Your task to perform on an android device: check data usage Image 0: 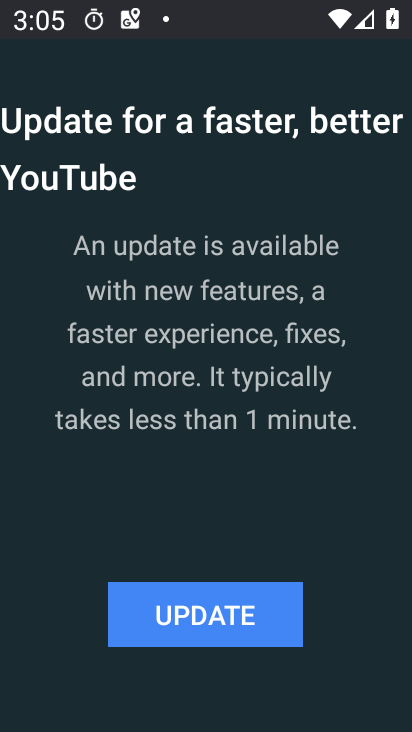
Step 0: press home button
Your task to perform on an android device: check data usage Image 1: 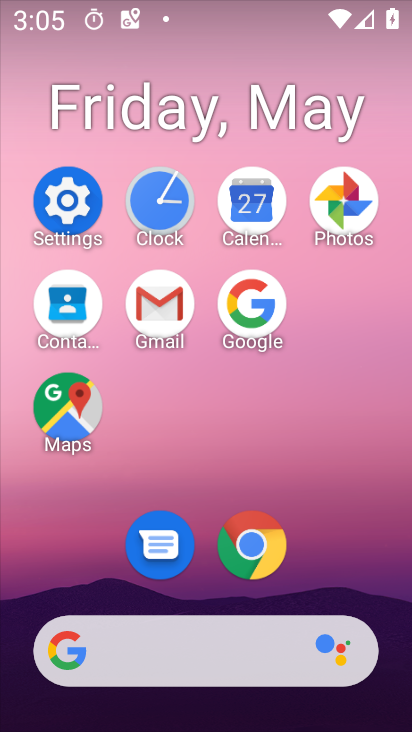
Step 1: click (72, 197)
Your task to perform on an android device: check data usage Image 2: 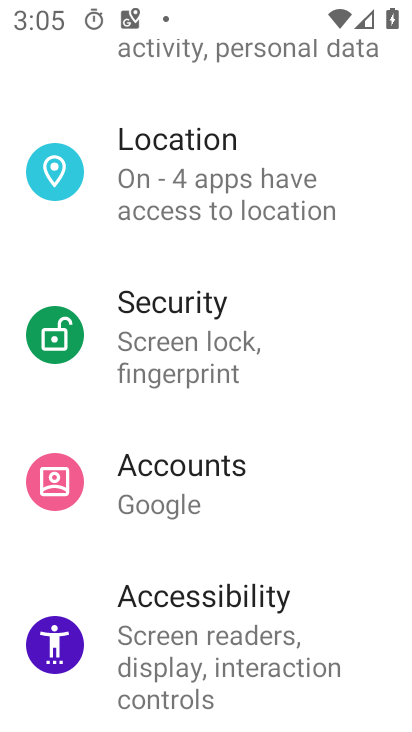
Step 2: drag from (315, 179) to (304, 592)
Your task to perform on an android device: check data usage Image 3: 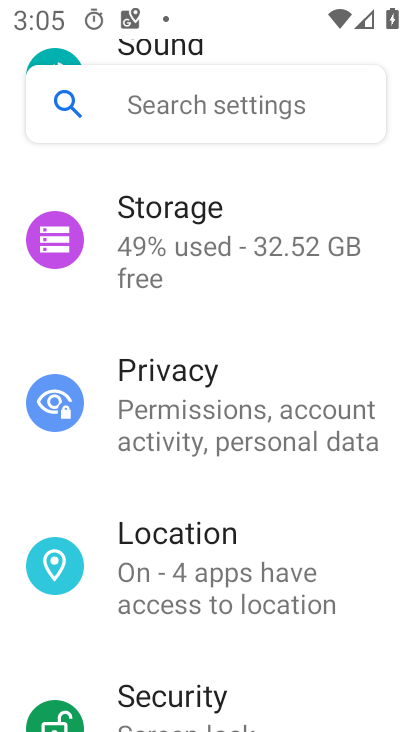
Step 3: drag from (273, 195) to (246, 681)
Your task to perform on an android device: check data usage Image 4: 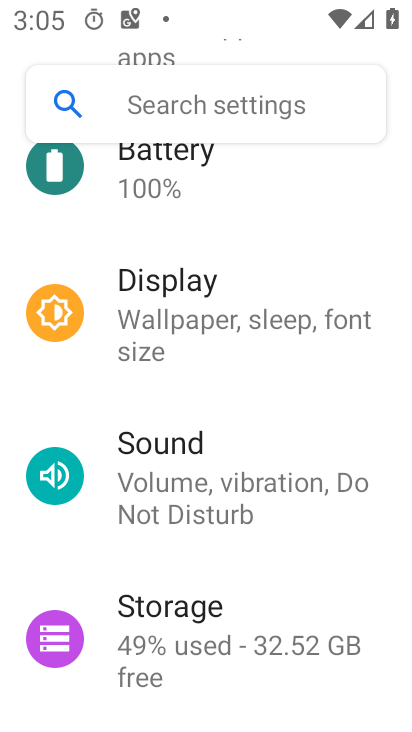
Step 4: drag from (333, 243) to (353, 723)
Your task to perform on an android device: check data usage Image 5: 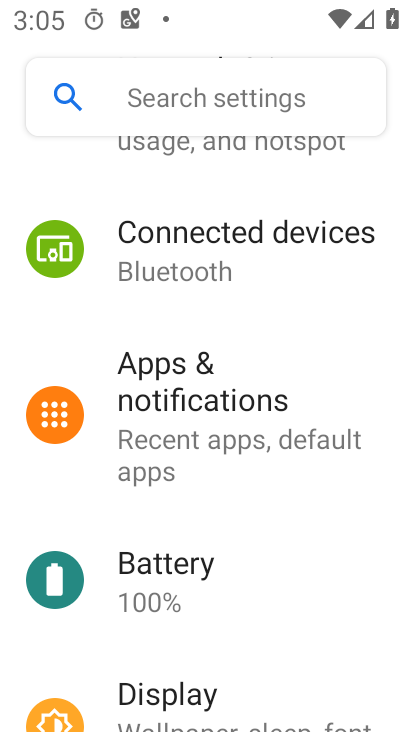
Step 5: drag from (277, 283) to (283, 577)
Your task to perform on an android device: check data usage Image 6: 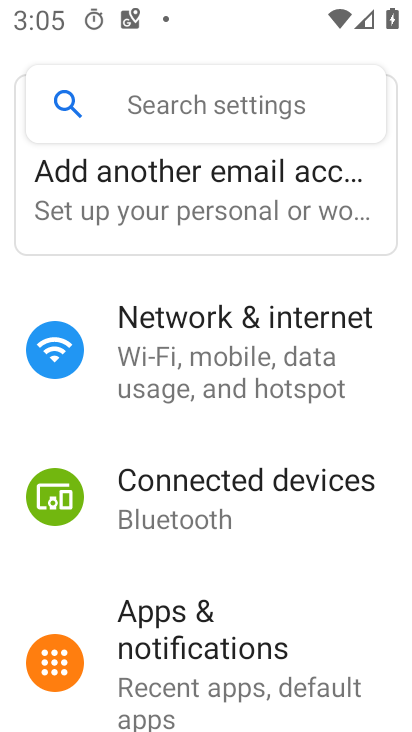
Step 6: click (220, 385)
Your task to perform on an android device: check data usage Image 7: 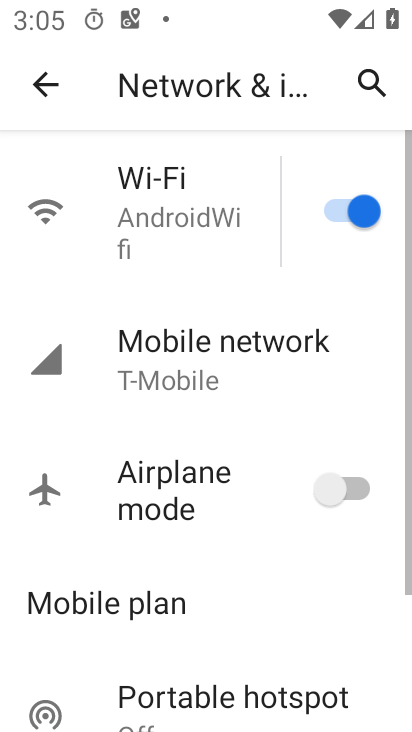
Step 7: click (212, 364)
Your task to perform on an android device: check data usage Image 8: 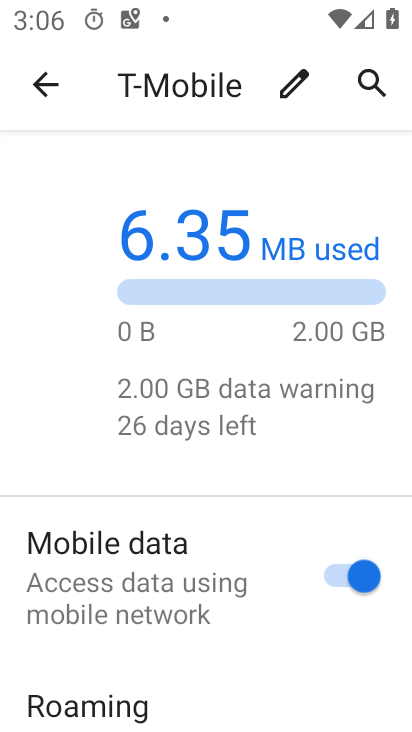
Step 8: task complete